Your task to perform on an android device: empty trash in the gmail app Image 0: 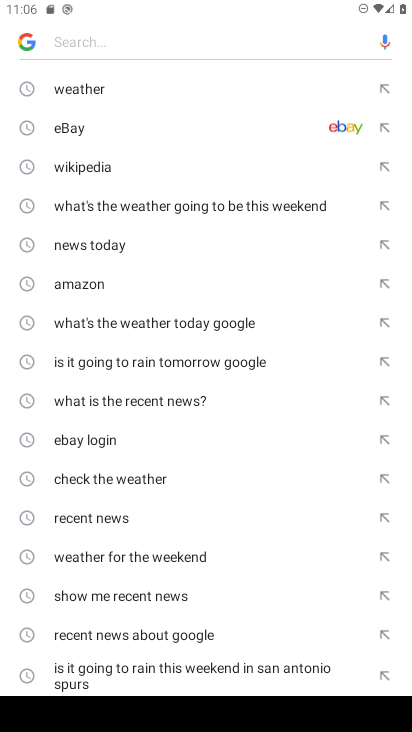
Step 0: press home button
Your task to perform on an android device: empty trash in the gmail app Image 1: 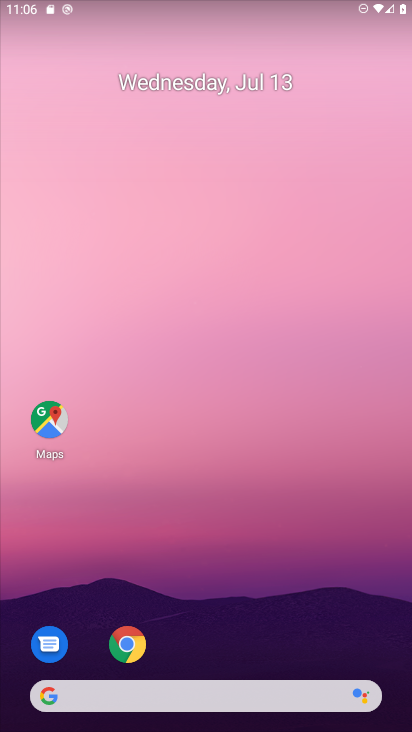
Step 1: drag from (268, 604) to (223, 43)
Your task to perform on an android device: empty trash in the gmail app Image 2: 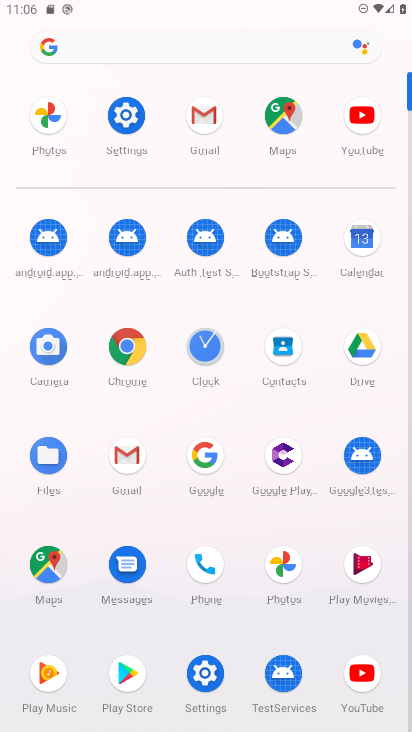
Step 2: click (203, 114)
Your task to perform on an android device: empty trash in the gmail app Image 3: 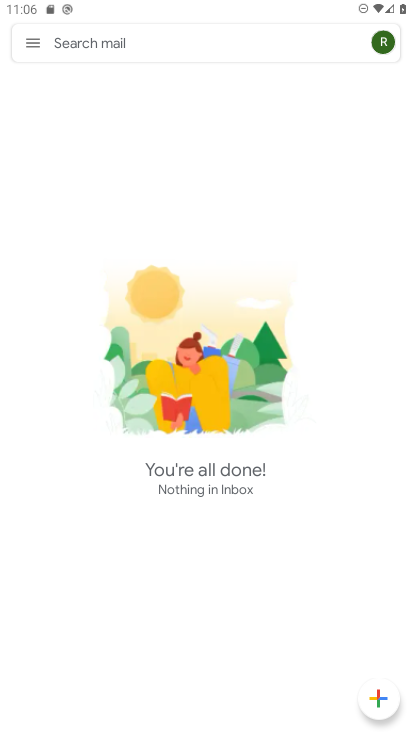
Step 3: click (25, 43)
Your task to perform on an android device: empty trash in the gmail app Image 4: 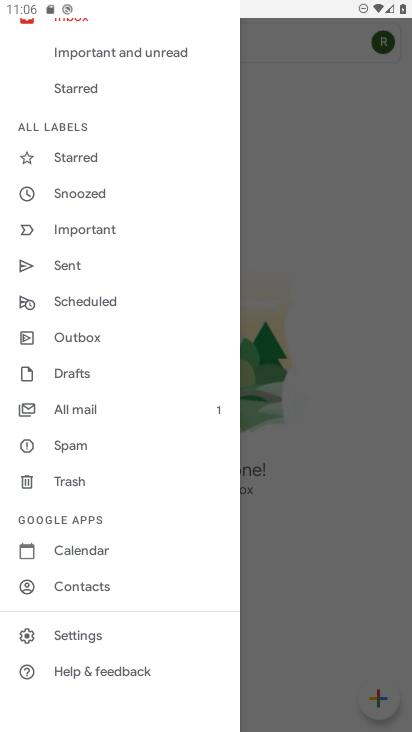
Step 4: click (76, 634)
Your task to perform on an android device: empty trash in the gmail app Image 5: 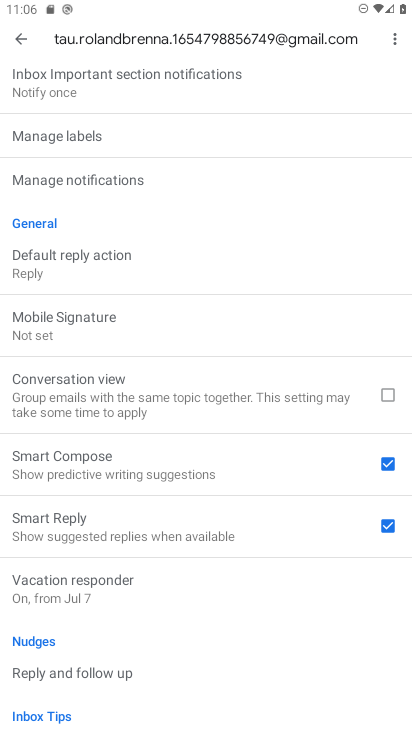
Step 5: click (17, 34)
Your task to perform on an android device: empty trash in the gmail app Image 6: 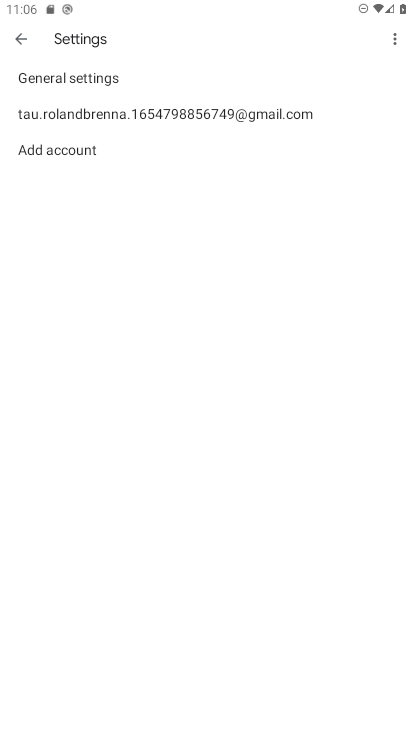
Step 6: click (16, 38)
Your task to perform on an android device: empty trash in the gmail app Image 7: 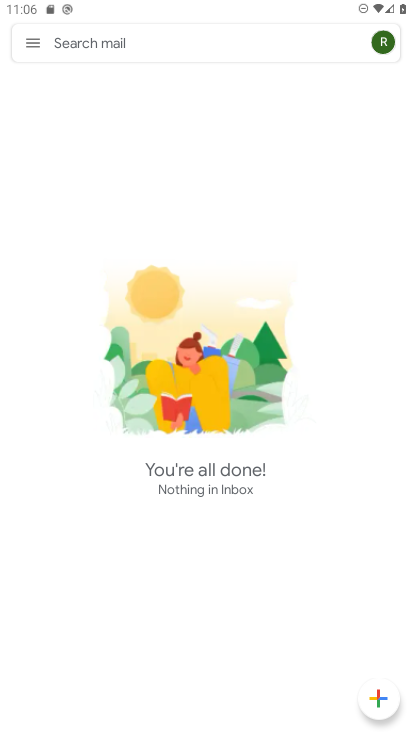
Step 7: click (27, 42)
Your task to perform on an android device: empty trash in the gmail app Image 8: 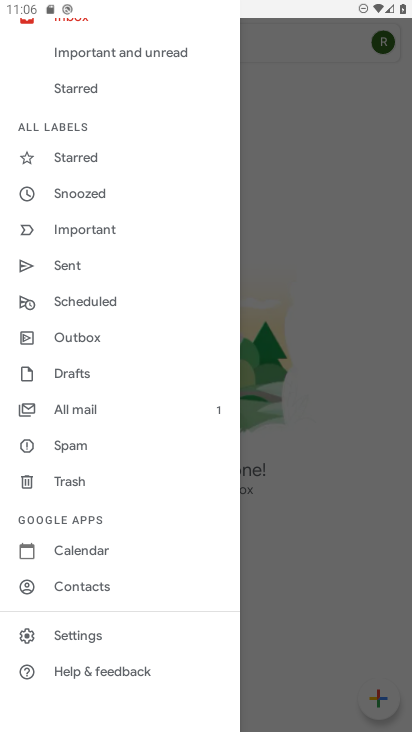
Step 8: click (70, 475)
Your task to perform on an android device: empty trash in the gmail app Image 9: 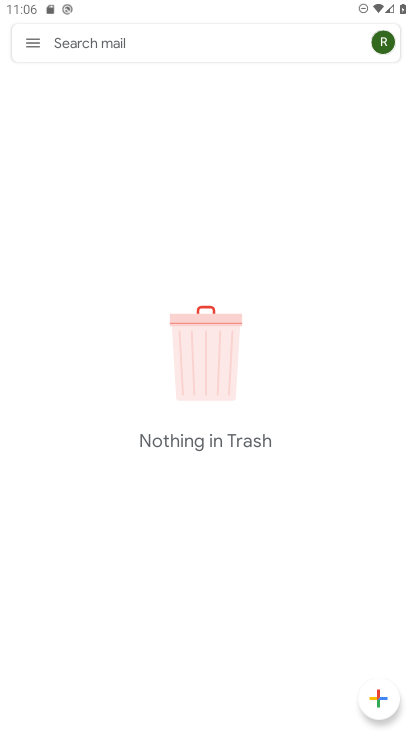
Step 9: task complete